Your task to perform on an android device: What is the news today? Image 0: 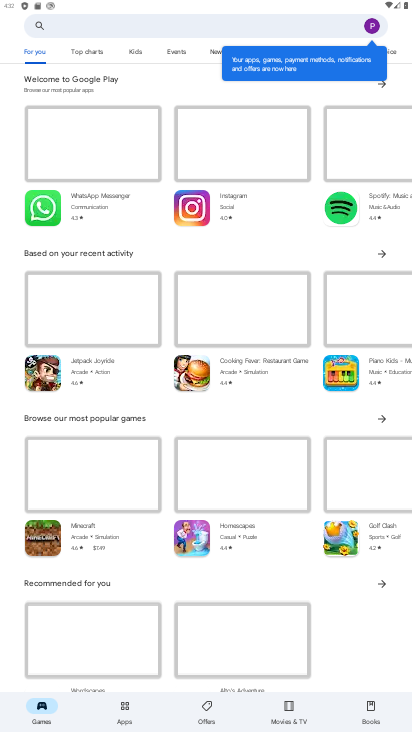
Step 0: press home button
Your task to perform on an android device: What is the news today? Image 1: 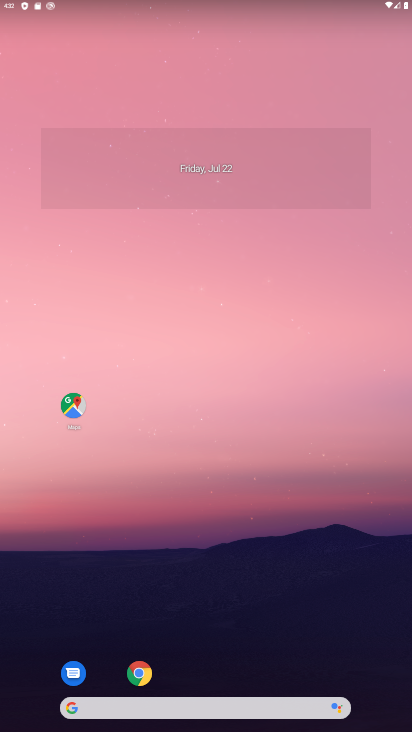
Step 1: click (71, 706)
Your task to perform on an android device: What is the news today? Image 2: 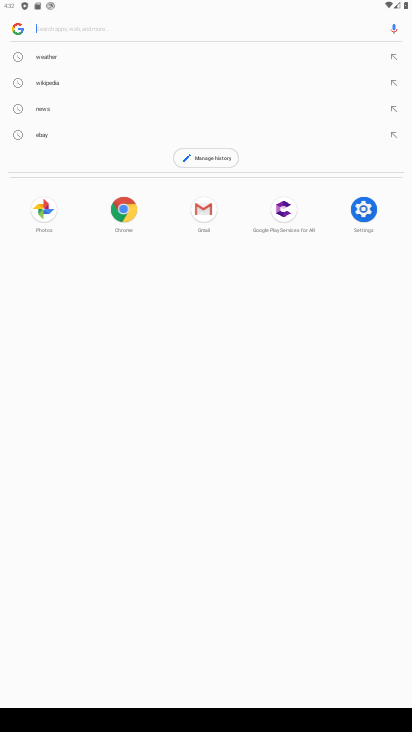
Step 2: type "What is the news today?"
Your task to perform on an android device: What is the news today? Image 3: 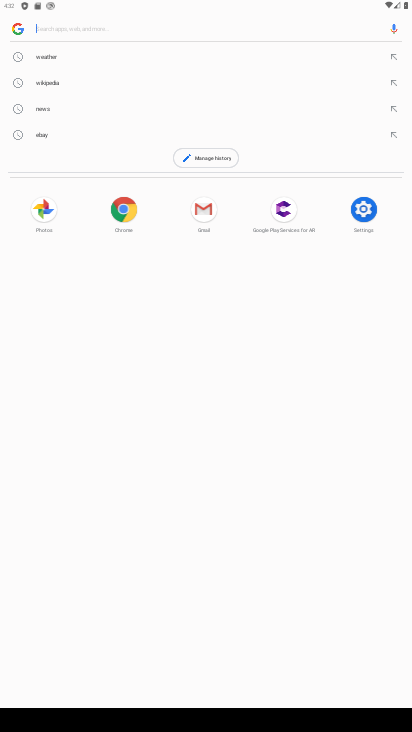
Step 3: click (57, 30)
Your task to perform on an android device: What is the news today? Image 4: 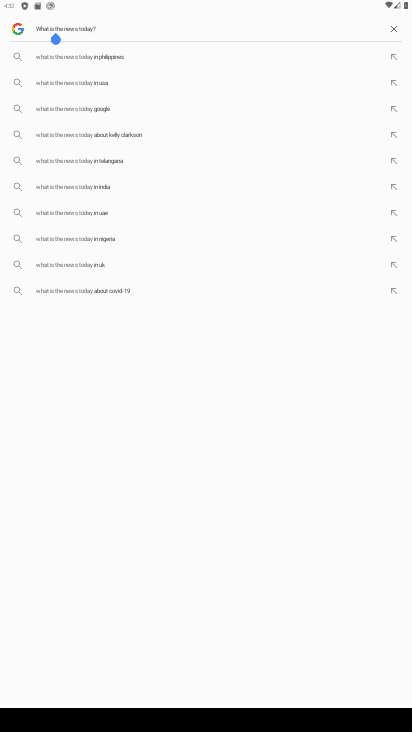
Step 4: press enter
Your task to perform on an android device: What is the news today? Image 5: 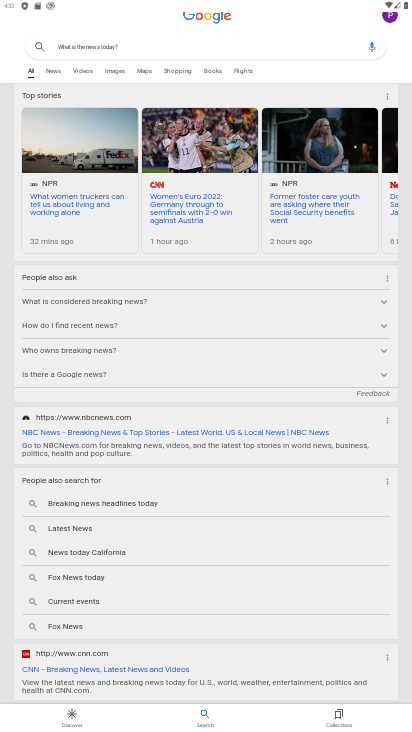
Step 5: task complete